Your task to perform on an android device: Open Wikipedia Image 0: 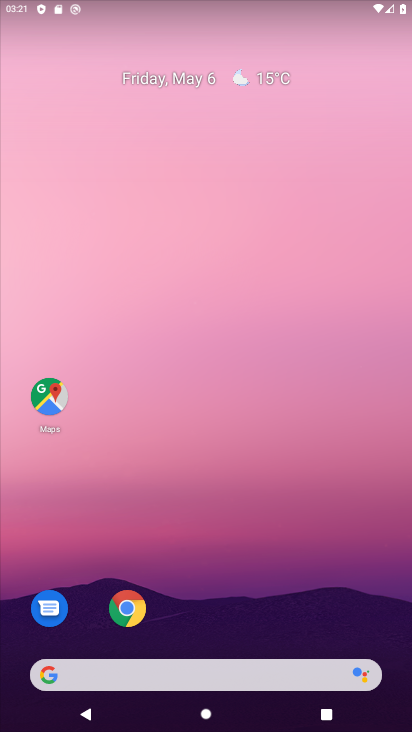
Step 0: click (121, 597)
Your task to perform on an android device: Open Wikipedia Image 1: 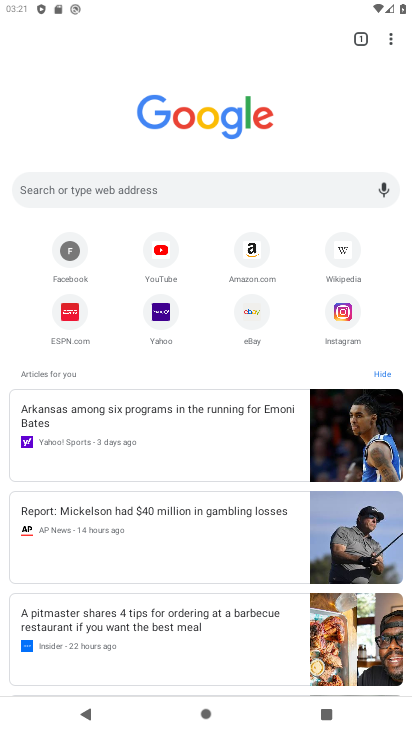
Step 1: click (185, 186)
Your task to perform on an android device: Open Wikipedia Image 2: 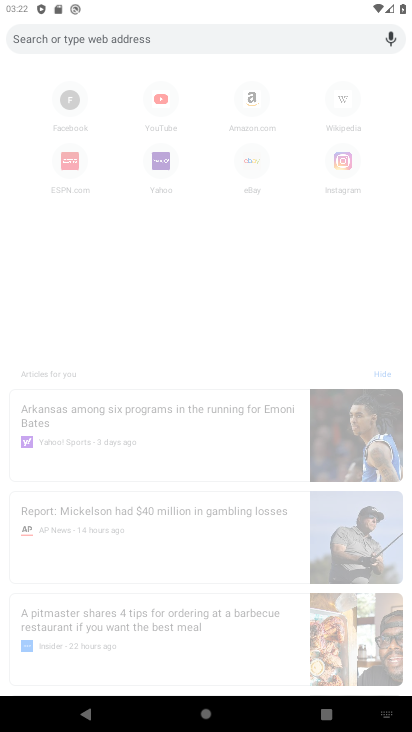
Step 2: click (320, 115)
Your task to perform on an android device: Open Wikipedia Image 3: 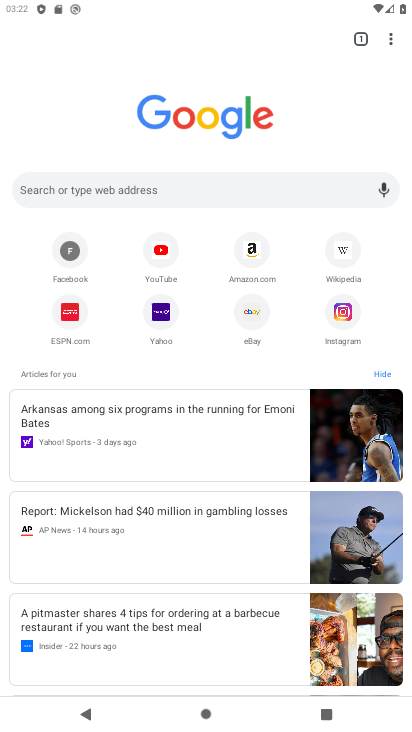
Step 3: click (335, 250)
Your task to perform on an android device: Open Wikipedia Image 4: 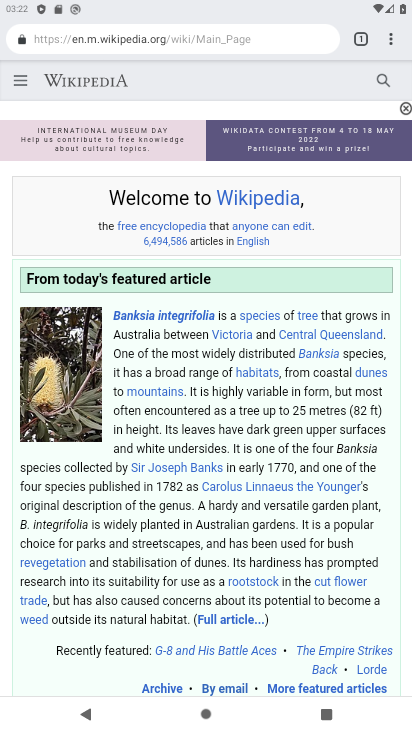
Step 4: task complete